Your task to perform on an android device: change text size in settings app Image 0: 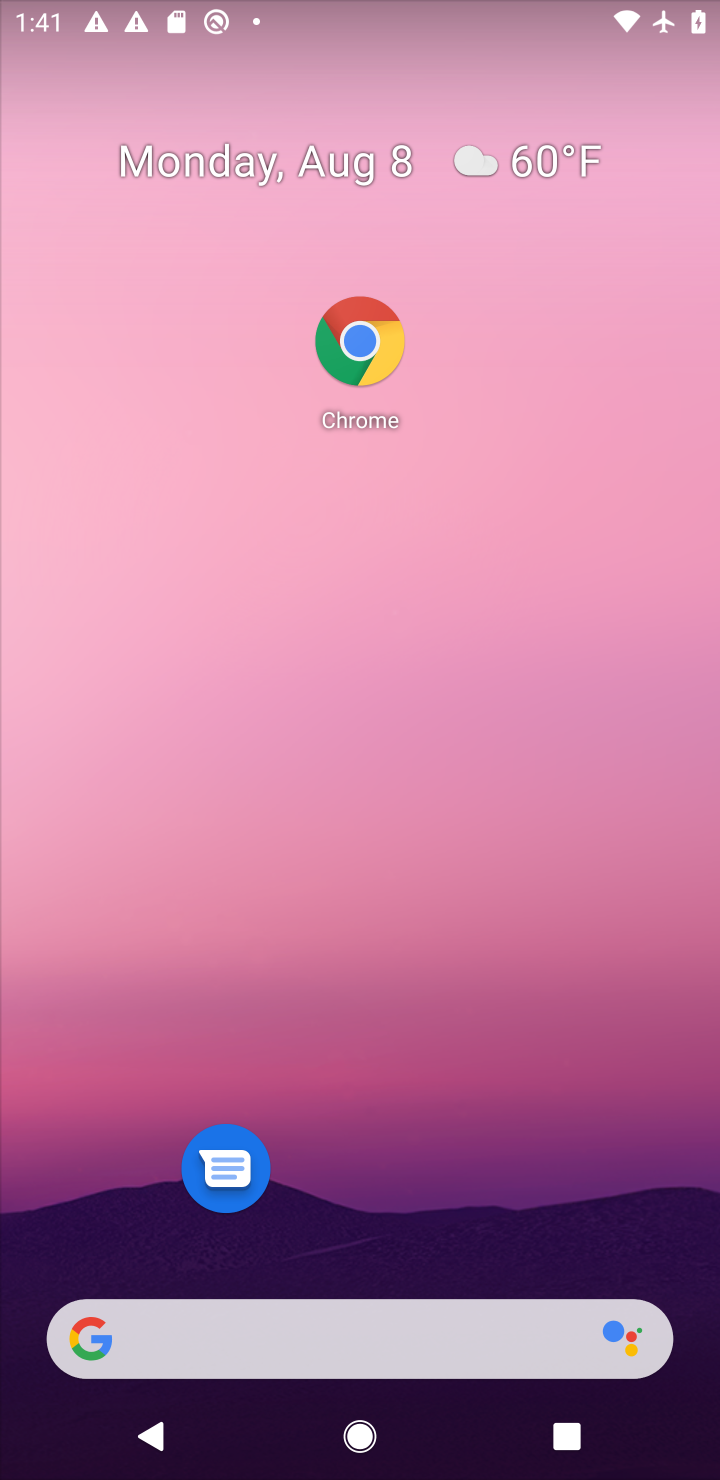
Step 0: drag from (471, 1246) to (496, 214)
Your task to perform on an android device: change text size in settings app Image 1: 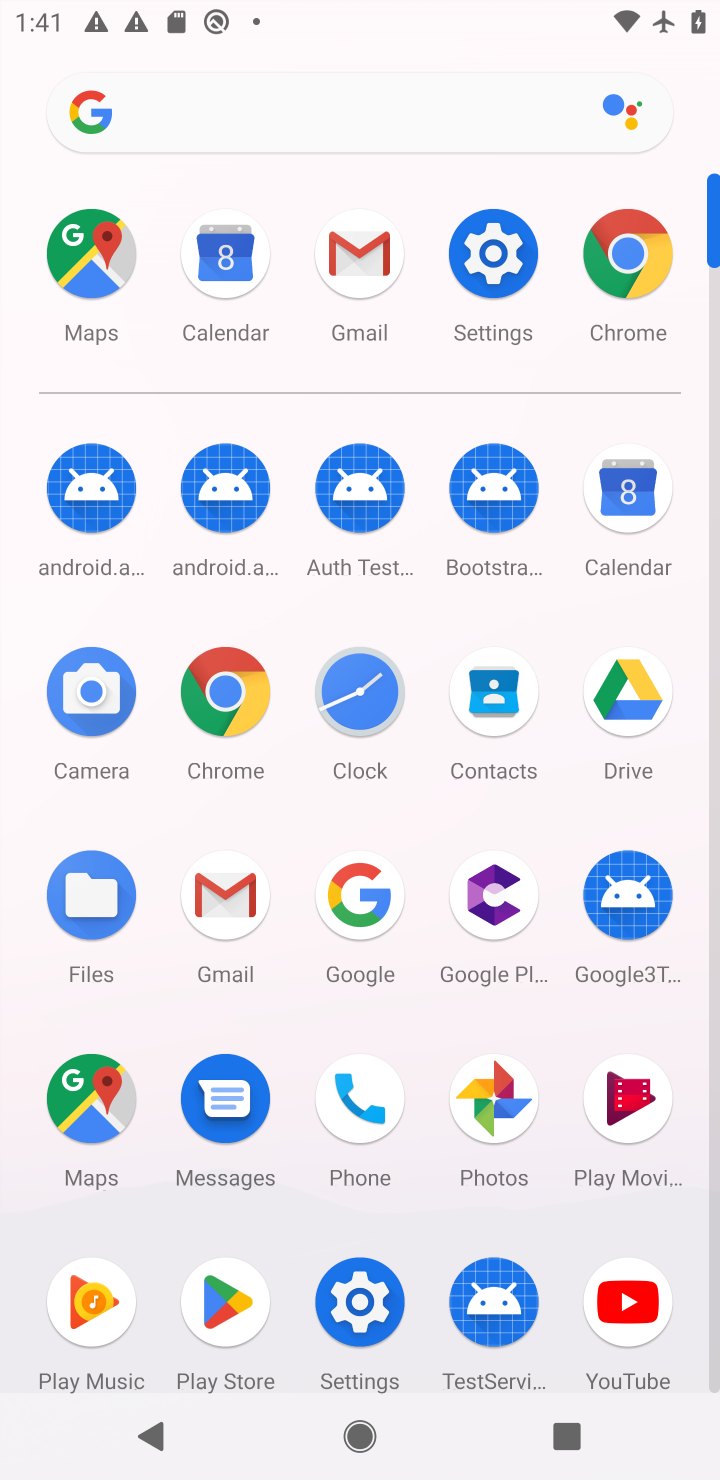
Step 1: click (369, 1336)
Your task to perform on an android device: change text size in settings app Image 2: 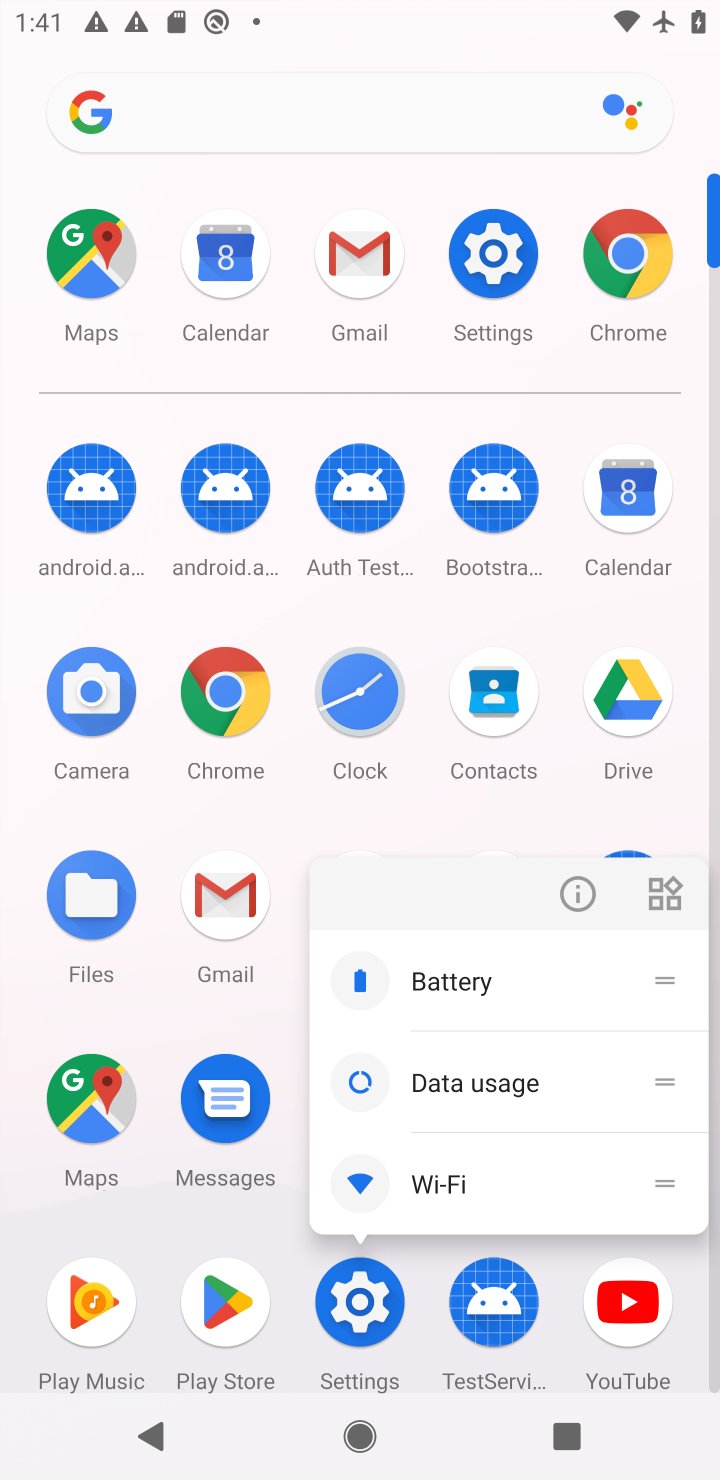
Step 2: click (324, 1357)
Your task to perform on an android device: change text size in settings app Image 3: 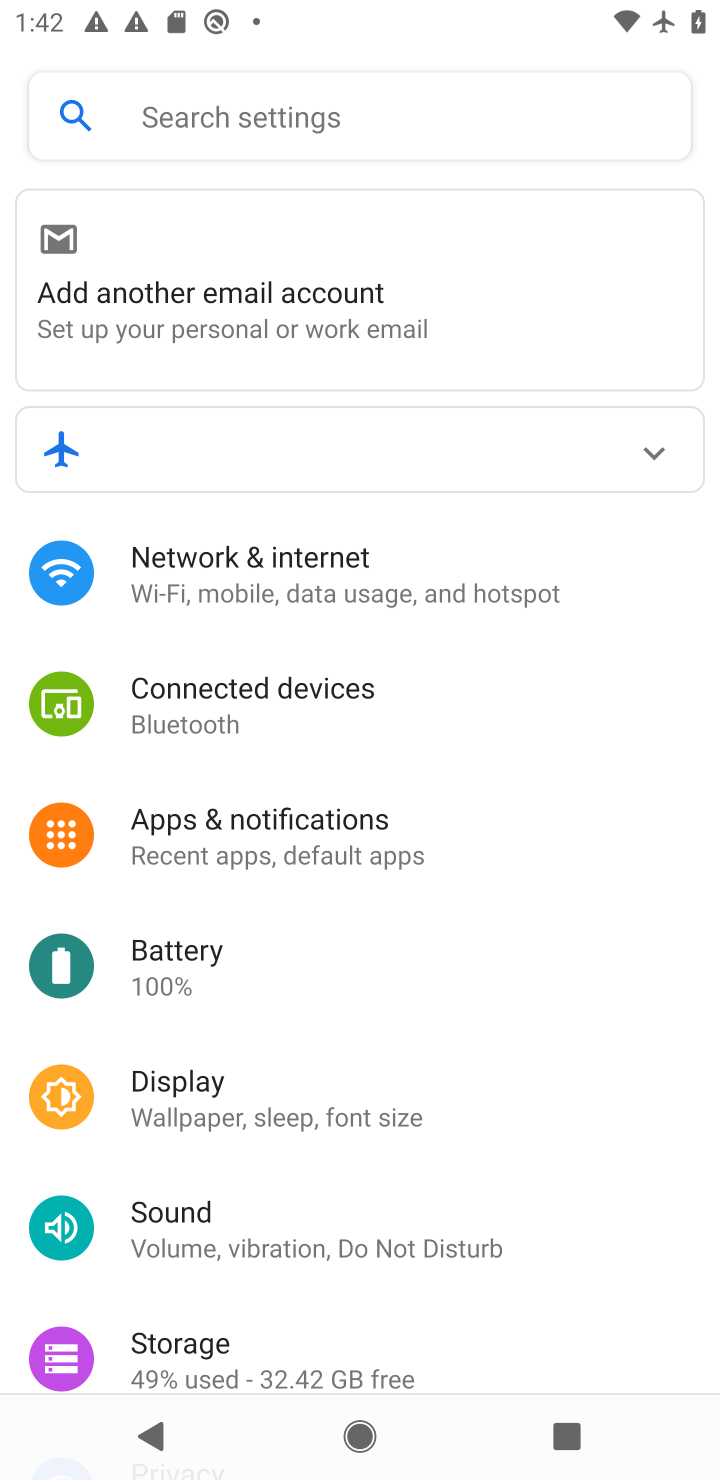
Step 3: click (301, 1136)
Your task to perform on an android device: change text size in settings app Image 4: 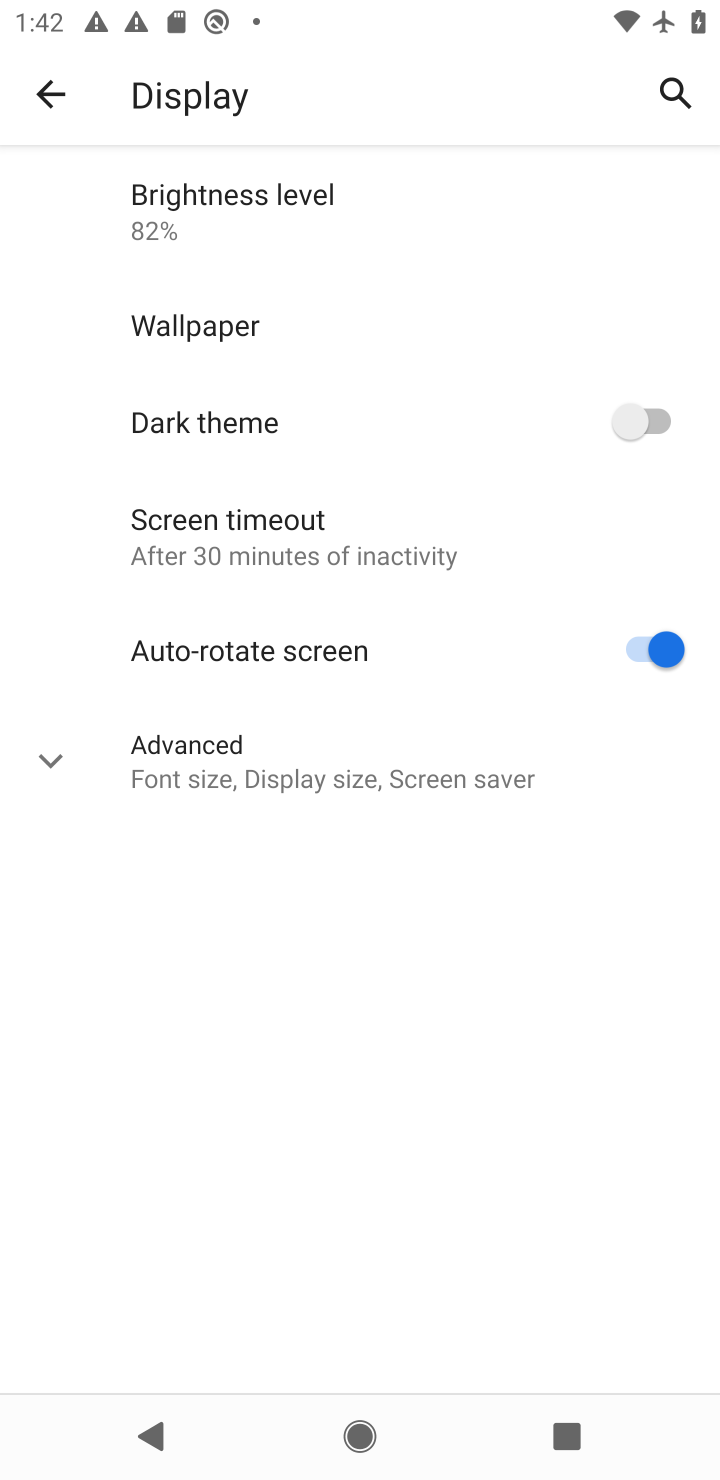
Step 4: click (346, 748)
Your task to perform on an android device: change text size in settings app Image 5: 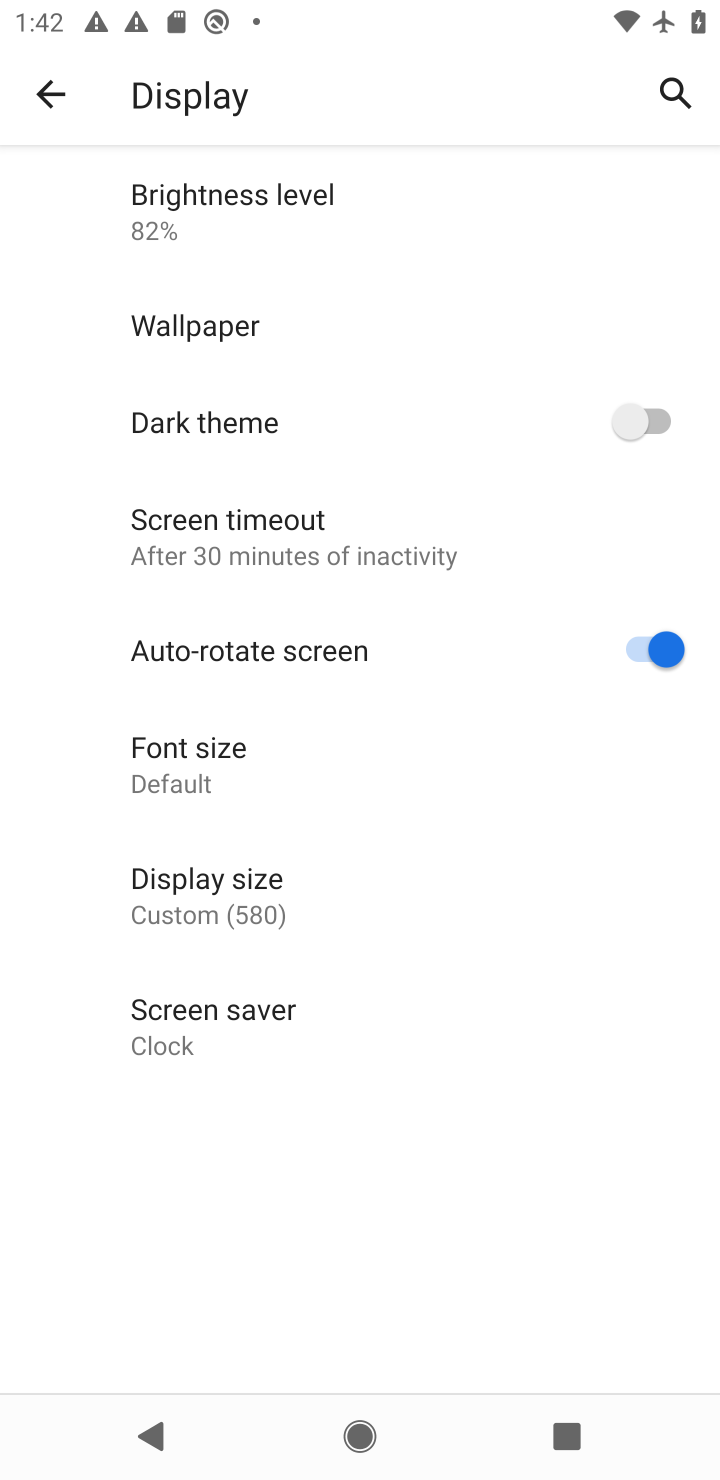
Step 5: click (322, 781)
Your task to perform on an android device: change text size in settings app Image 6: 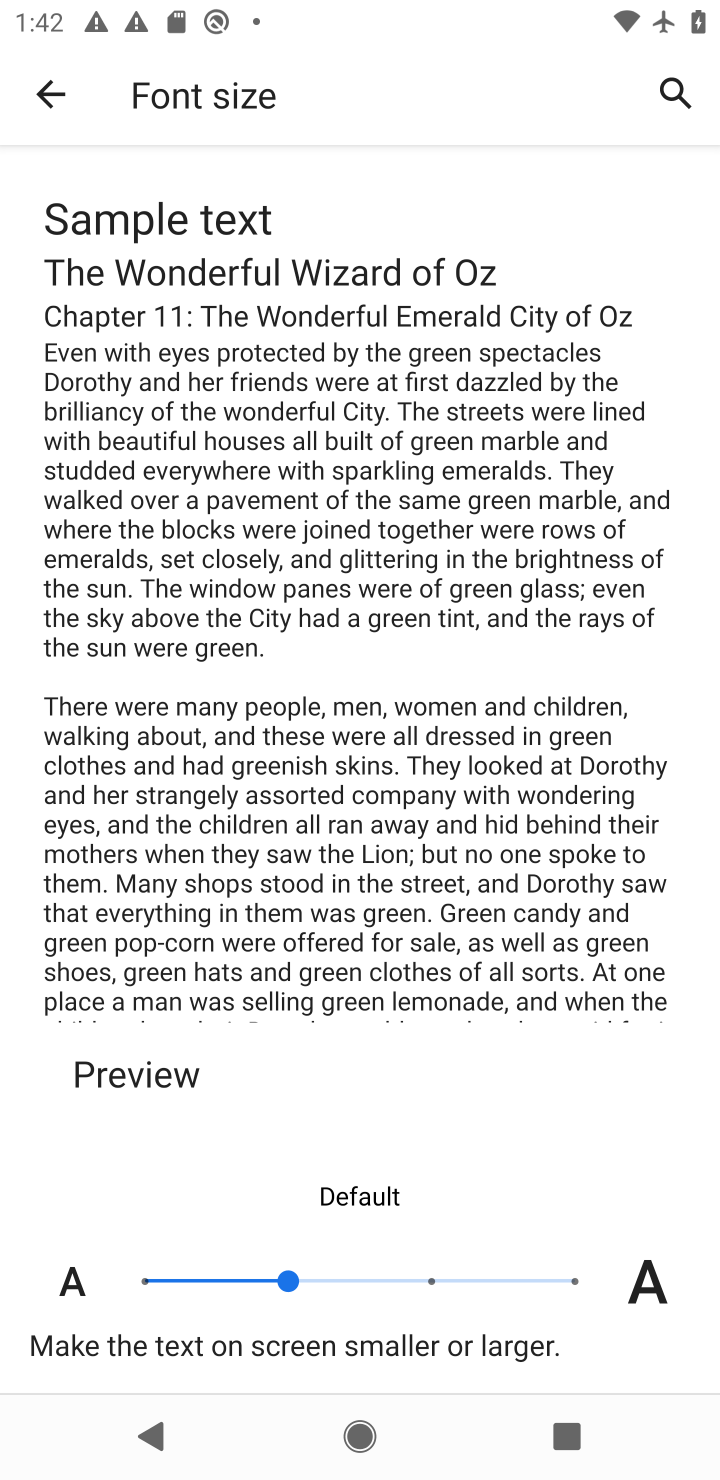
Step 6: click (572, 1286)
Your task to perform on an android device: change text size in settings app Image 7: 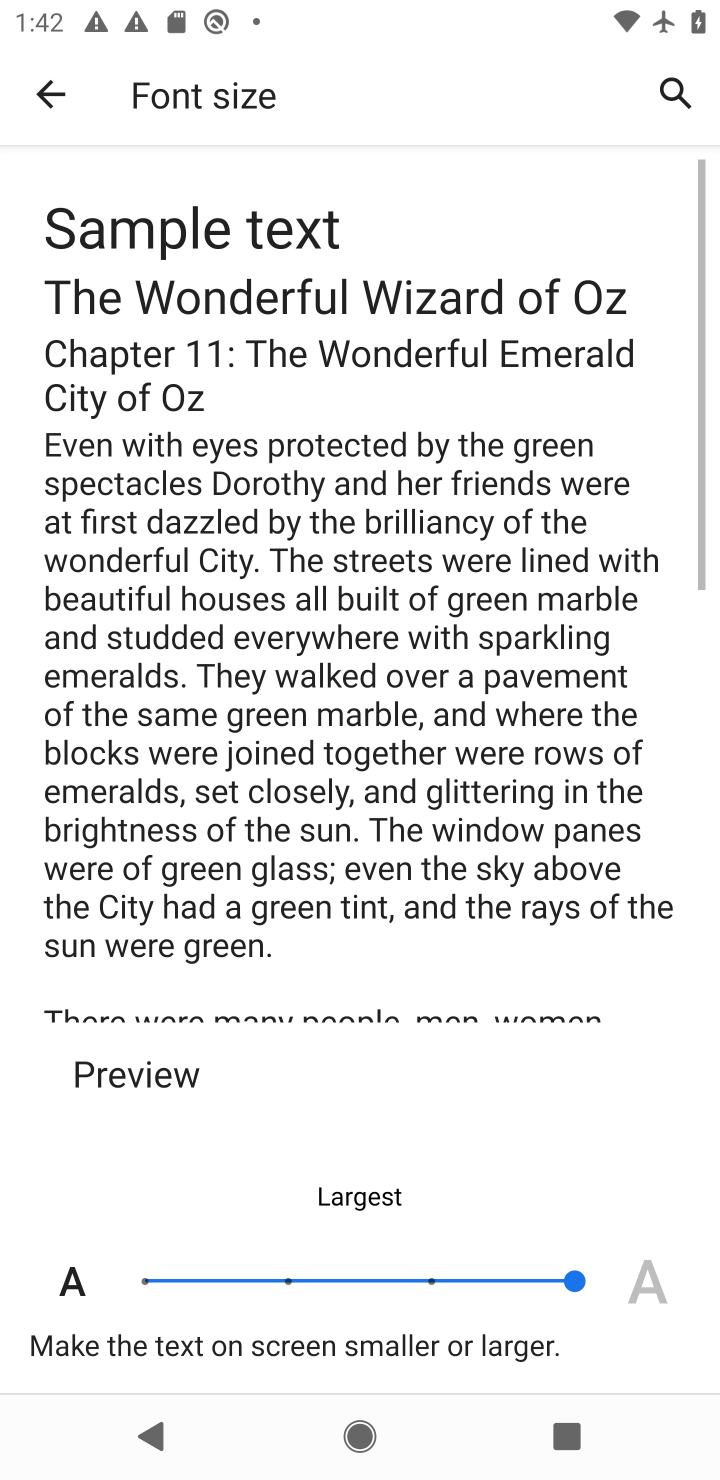
Step 7: task complete